Your task to perform on an android device: Go to internet settings Image 0: 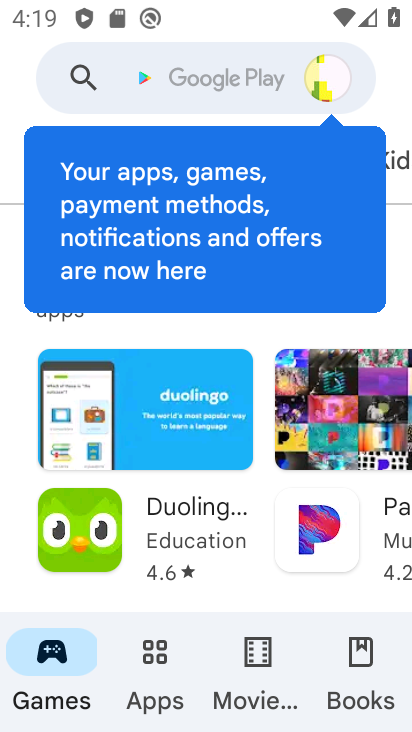
Step 0: press back button
Your task to perform on an android device: Go to internet settings Image 1: 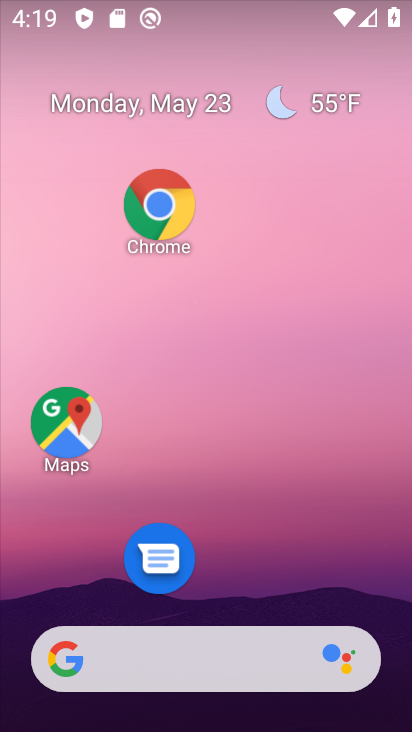
Step 1: drag from (269, 642) to (206, 93)
Your task to perform on an android device: Go to internet settings Image 2: 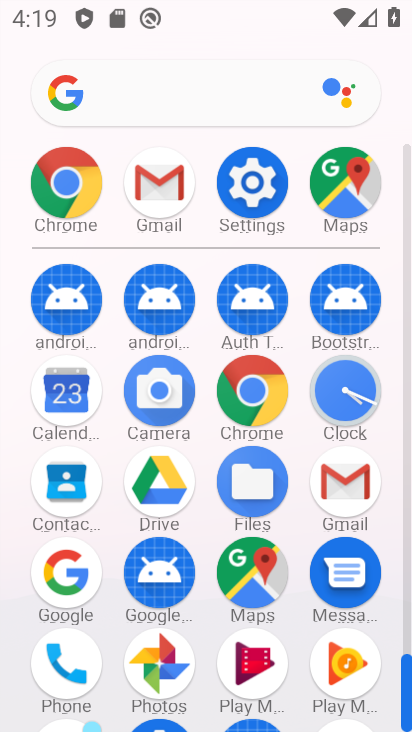
Step 2: click (256, 174)
Your task to perform on an android device: Go to internet settings Image 3: 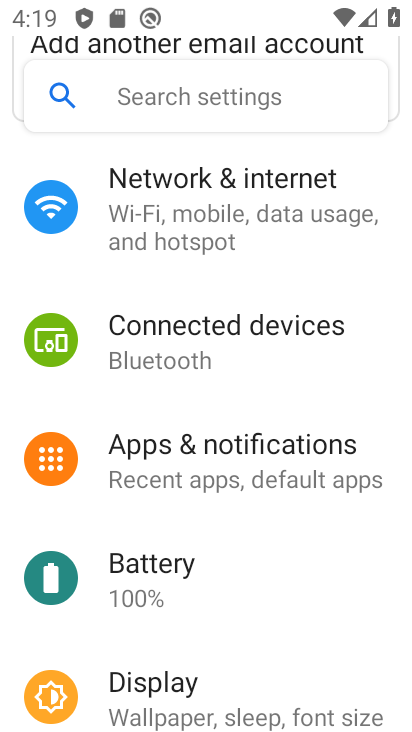
Step 3: click (224, 183)
Your task to perform on an android device: Go to internet settings Image 4: 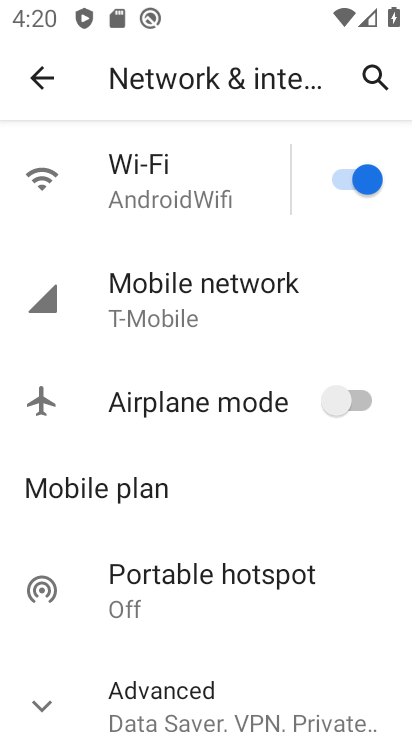
Step 4: click (182, 297)
Your task to perform on an android device: Go to internet settings Image 5: 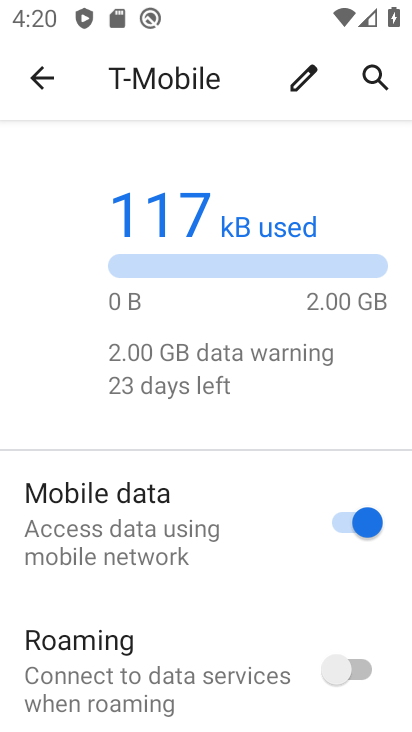
Step 5: task complete